Your task to perform on an android device: Go to Android settings Image 0: 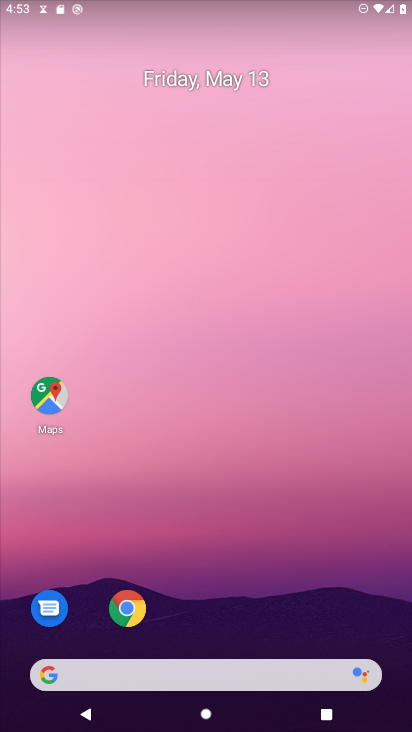
Step 0: drag from (266, 680) to (268, 89)
Your task to perform on an android device: Go to Android settings Image 1: 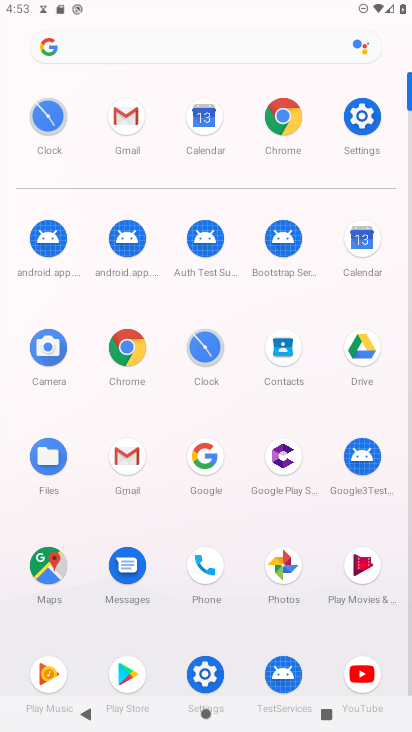
Step 1: click (361, 120)
Your task to perform on an android device: Go to Android settings Image 2: 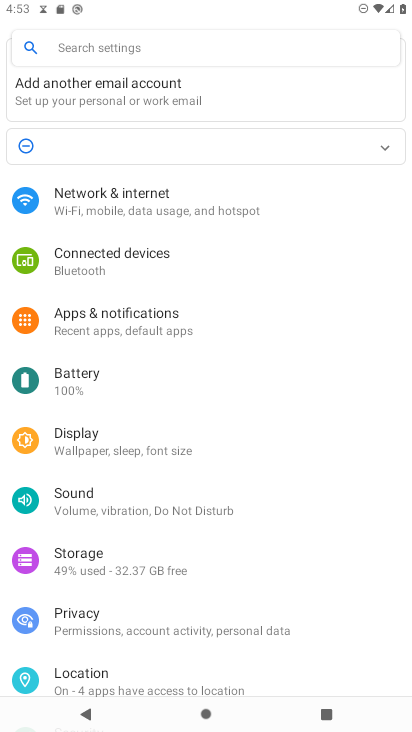
Step 2: drag from (177, 199) to (189, 37)
Your task to perform on an android device: Go to Android settings Image 3: 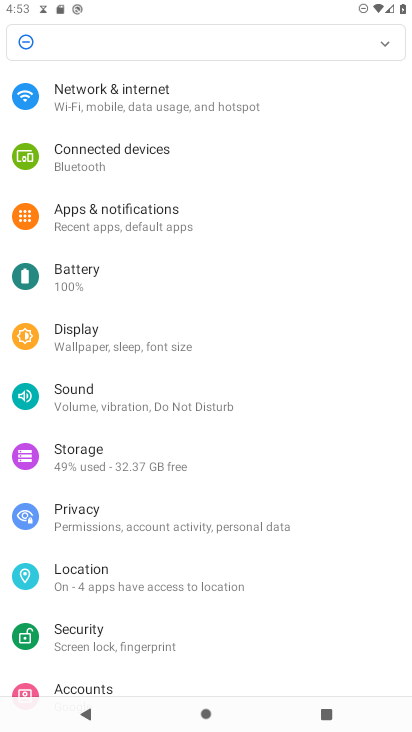
Step 3: drag from (161, 652) to (191, 7)
Your task to perform on an android device: Go to Android settings Image 4: 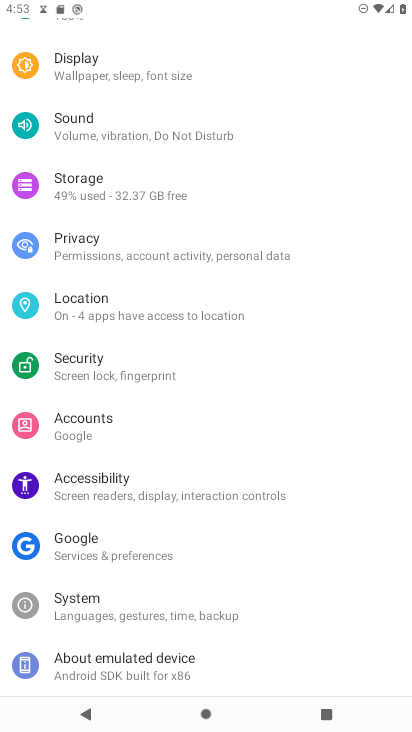
Step 4: click (92, 662)
Your task to perform on an android device: Go to Android settings Image 5: 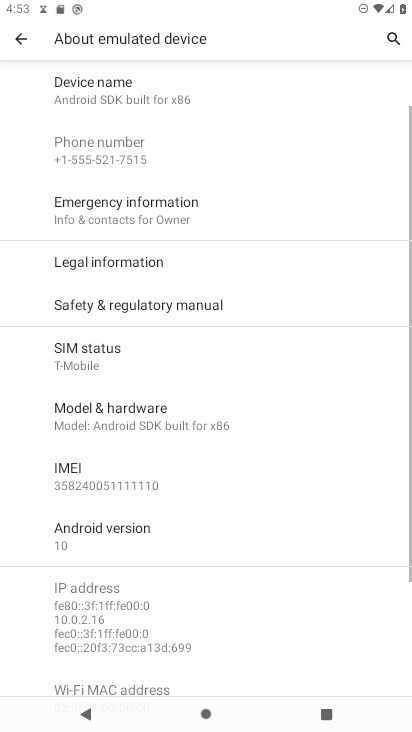
Step 5: click (155, 541)
Your task to perform on an android device: Go to Android settings Image 6: 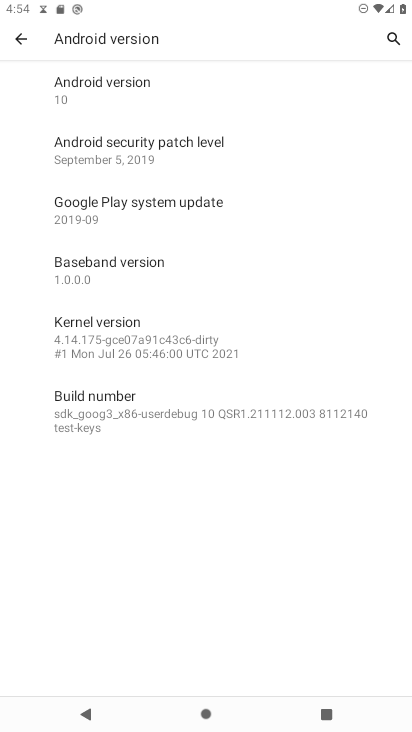
Step 6: task complete